Your task to perform on an android device: toggle priority inbox in the gmail app Image 0: 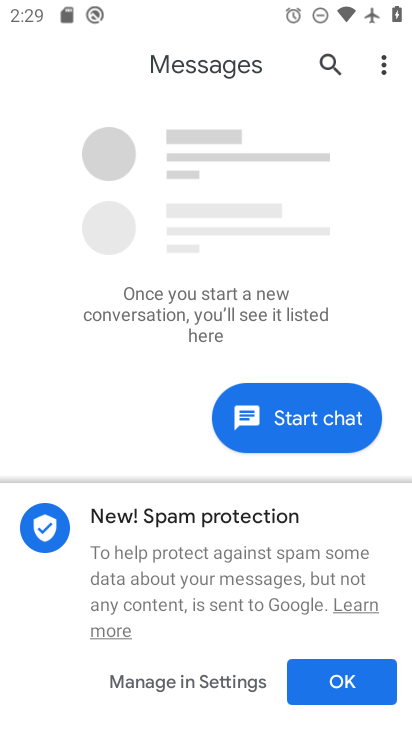
Step 0: press home button
Your task to perform on an android device: toggle priority inbox in the gmail app Image 1: 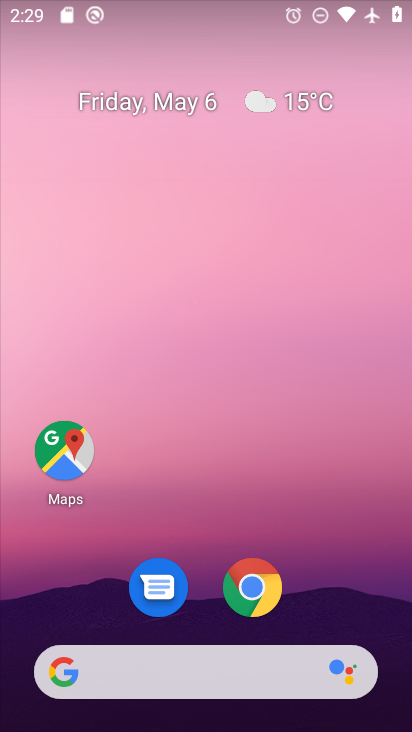
Step 1: drag from (333, 503) to (224, 36)
Your task to perform on an android device: toggle priority inbox in the gmail app Image 2: 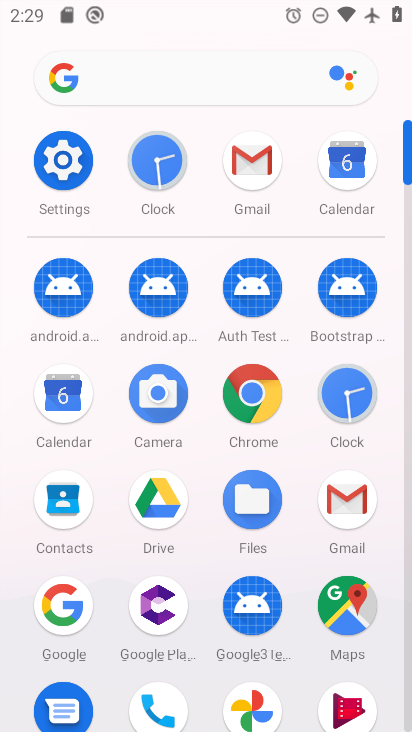
Step 2: click (346, 511)
Your task to perform on an android device: toggle priority inbox in the gmail app Image 3: 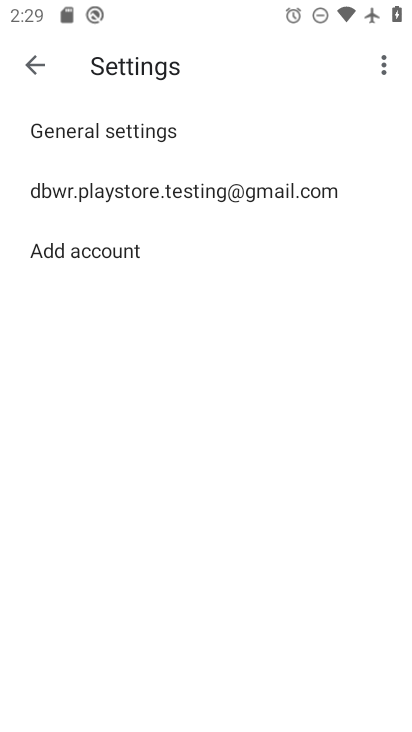
Step 3: click (161, 192)
Your task to perform on an android device: toggle priority inbox in the gmail app Image 4: 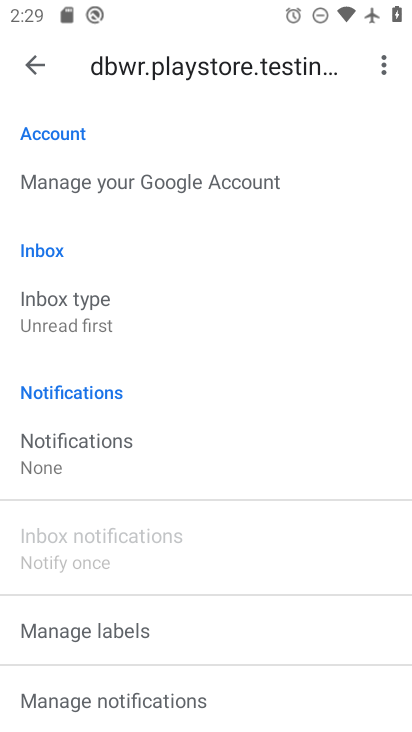
Step 4: click (81, 315)
Your task to perform on an android device: toggle priority inbox in the gmail app Image 5: 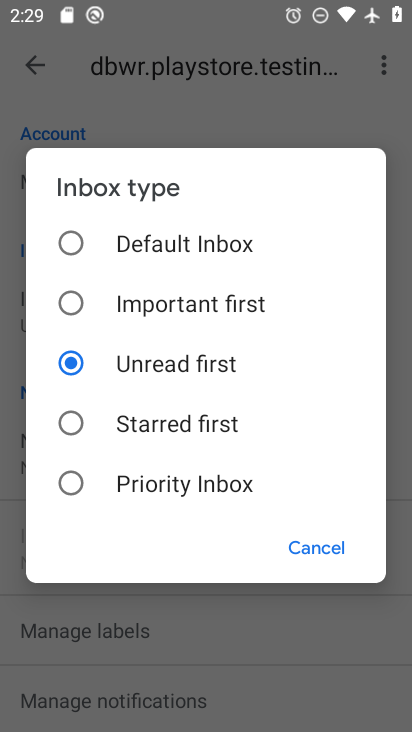
Step 5: click (165, 493)
Your task to perform on an android device: toggle priority inbox in the gmail app Image 6: 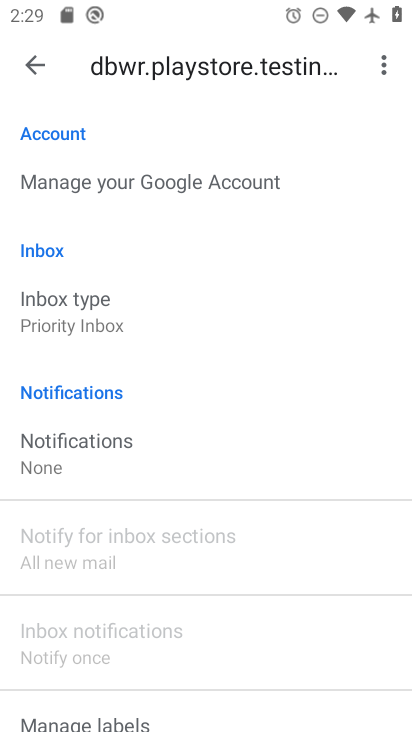
Step 6: task complete